Your task to perform on an android device: toggle priority inbox in the gmail app Image 0: 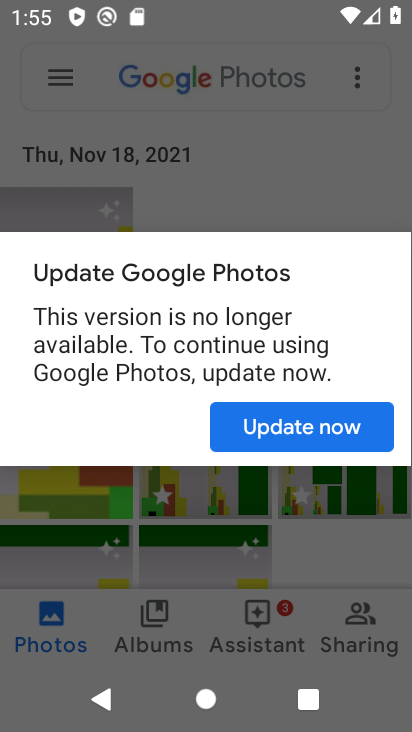
Step 0: press home button
Your task to perform on an android device: toggle priority inbox in the gmail app Image 1: 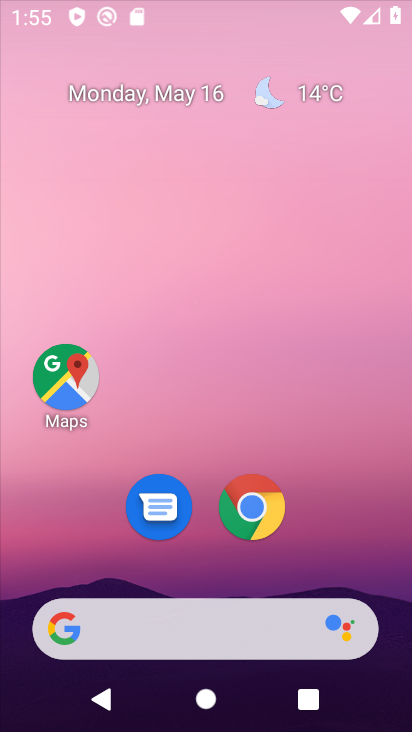
Step 1: drag from (330, 563) to (302, 175)
Your task to perform on an android device: toggle priority inbox in the gmail app Image 2: 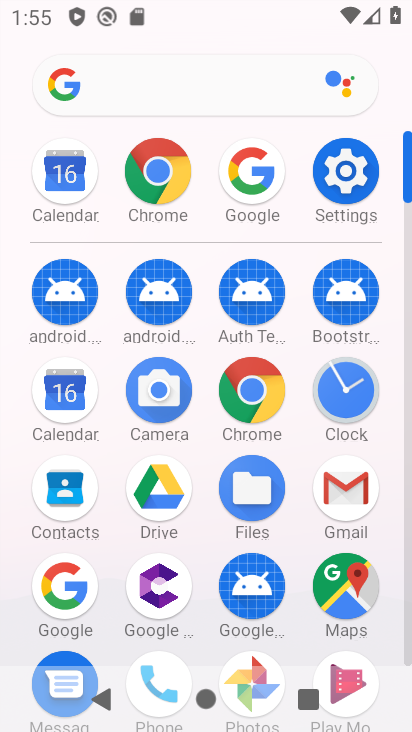
Step 2: click (356, 471)
Your task to perform on an android device: toggle priority inbox in the gmail app Image 3: 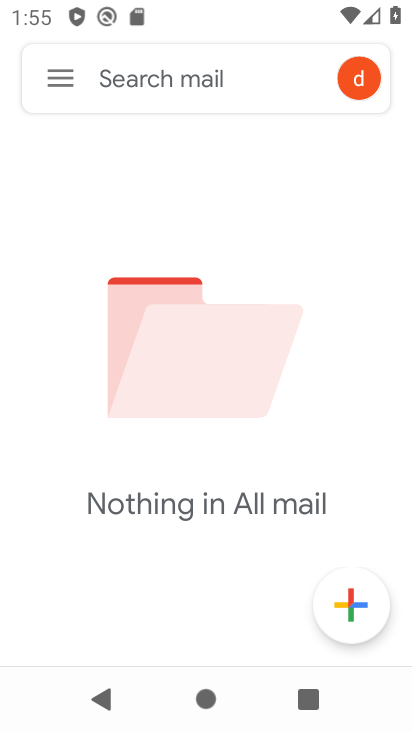
Step 3: click (56, 70)
Your task to perform on an android device: toggle priority inbox in the gmail app Image 4: 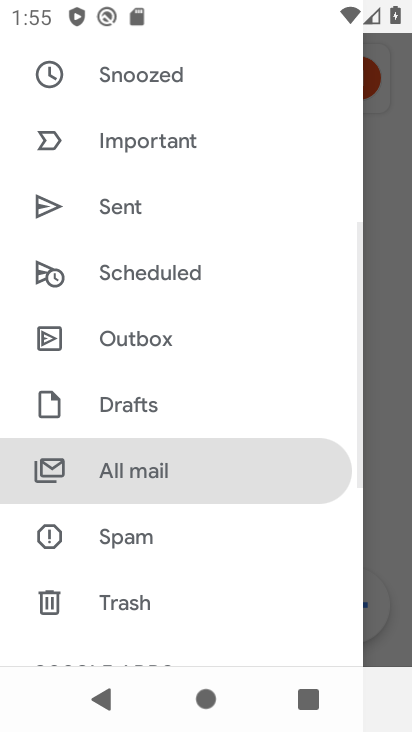
Step 4: drag from (170, 527) to (259, 180)
Your task to perform on an android device: toggle priority inbox in the gmail app Image 5: 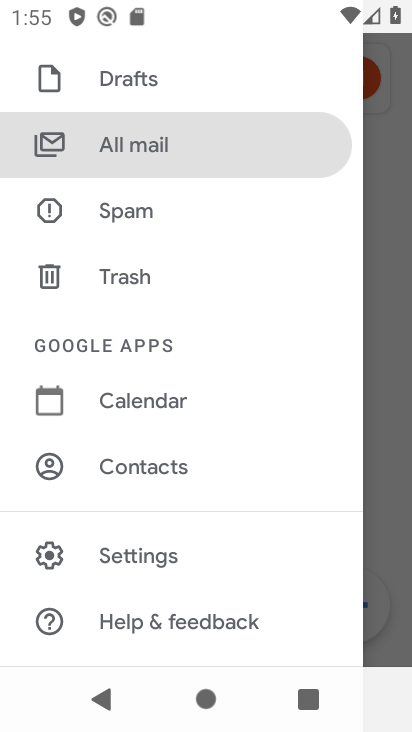
Step 5: click (155, 562)
Your task to perform on an android device: toggle priority inbox in the gmail app Image 6: 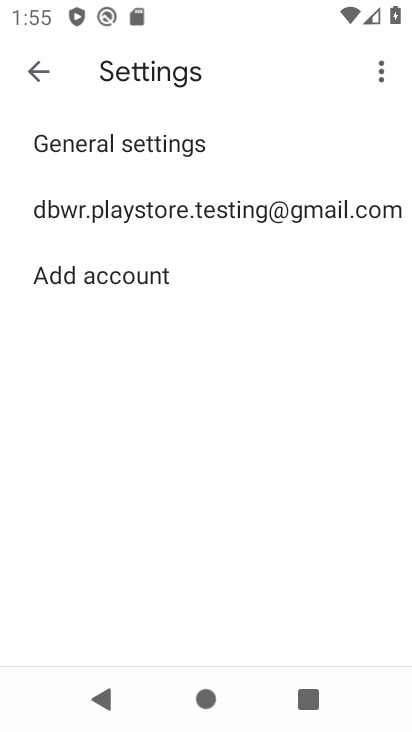
Step 6: click (212, 211)
Your task to perform on an android device: toggle priority inbox in the gmail app Image 7: 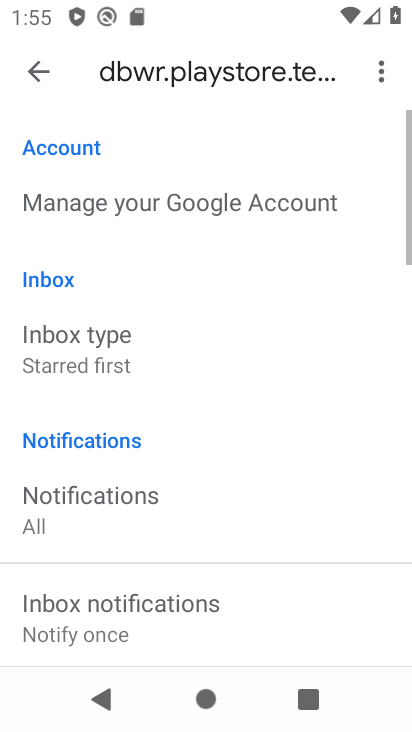
Step 7: drag from (160, 538) to (186, 308)
Your task to perform on an android device: toggle priority inbox in the gmail app Image 8: 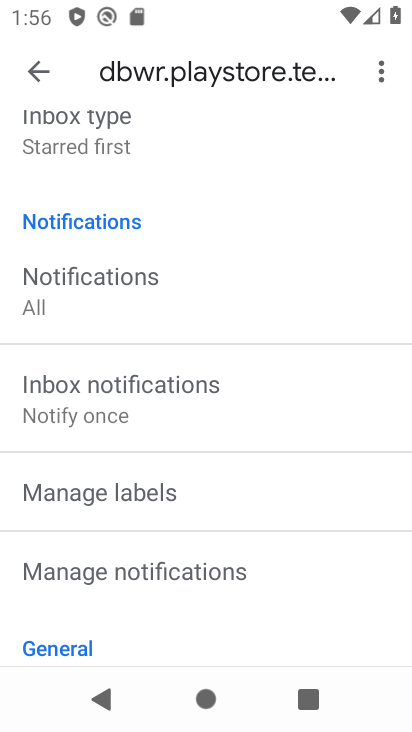
Step 8: click (163, 140)
Your task to perform on an android device: toggle priority inbox in the gmail app Image 9: 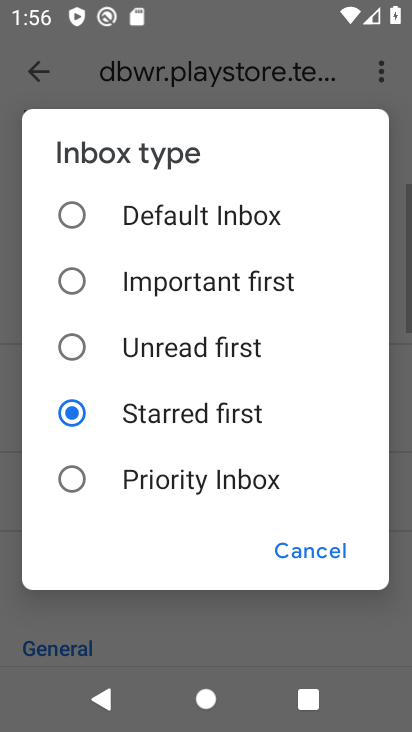
Step 9: click (158, 486)
Your task to perform on an android device: toggle priority inbox in the gmail app Image 10: 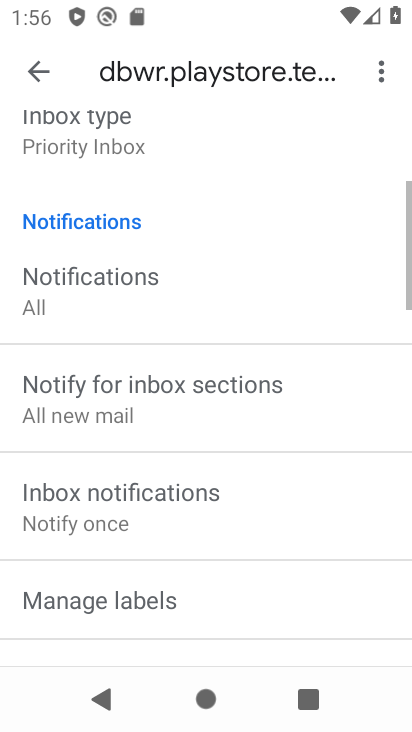
Step 10: task complete